Your task to perform on an android device: Go to eBay Image 0: 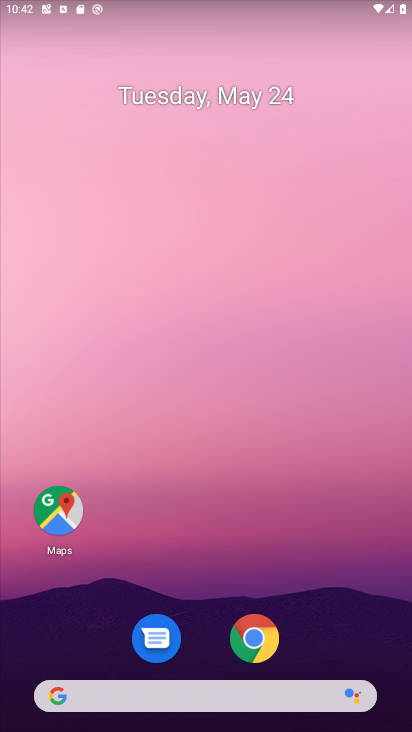
Step 0: click (163, 691)
Your task to perform on an android device: Go to eBay Image 1: 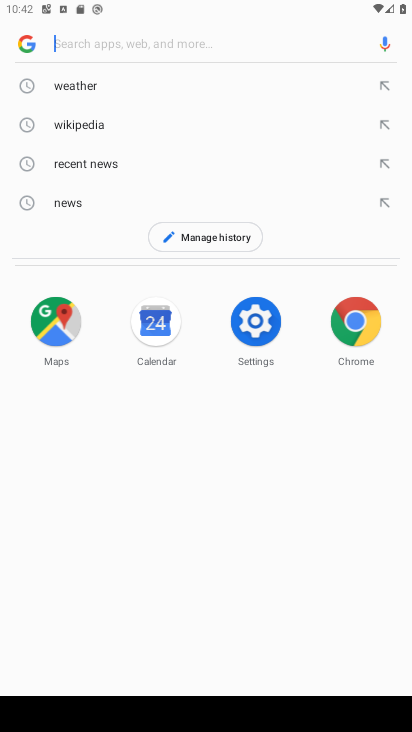
Step 1: type "ebay.com"
Your task to perform on an android device: Go to eBay Image 2: 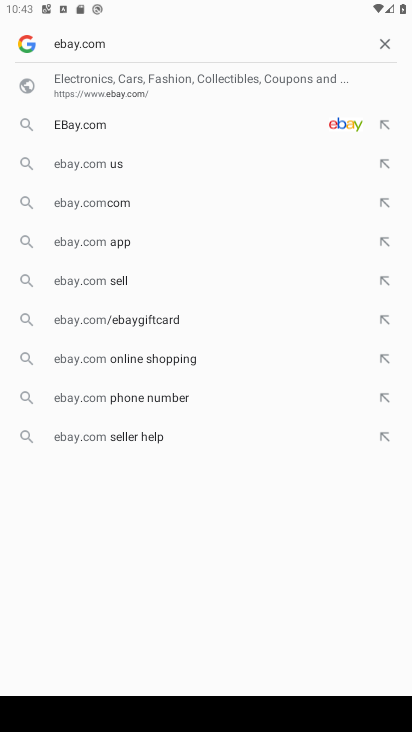
Step 2: click (173, 81)
Your task to perform on an android device: Go to eBay Image 3: 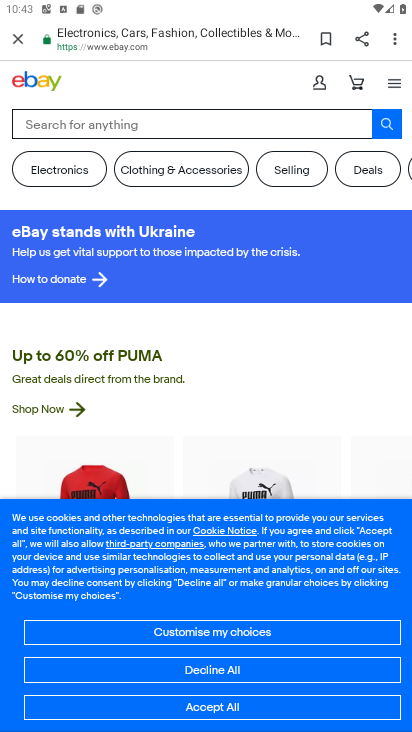
Step 3: task complete